Your task to perform on an android device: turn pop-ups off in chrome Image 0: 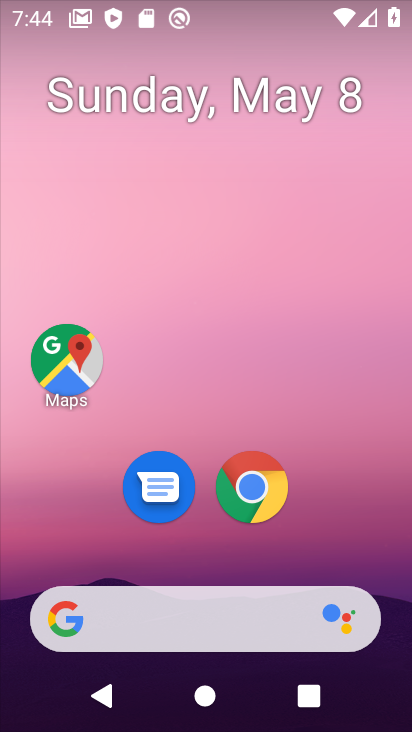
Step 0: click (257, 481)
Your task to perform on an android device: turn pop-ups off in chrome Image 1: 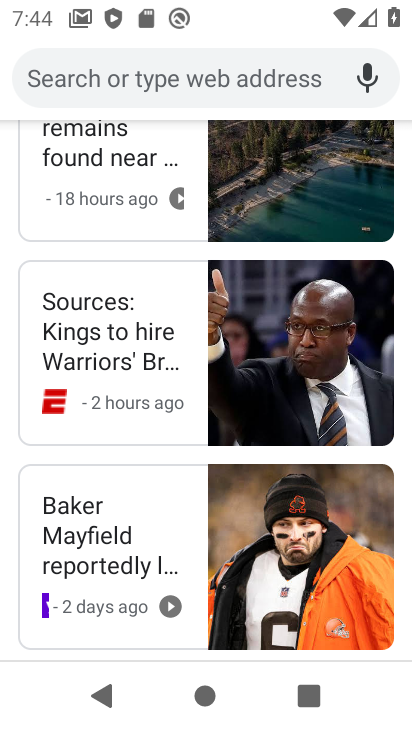
Step 1: drag from (264, 304) to (268, 520)
Your task to perform on an android device: turn pop-ups off in chrome Image 2: 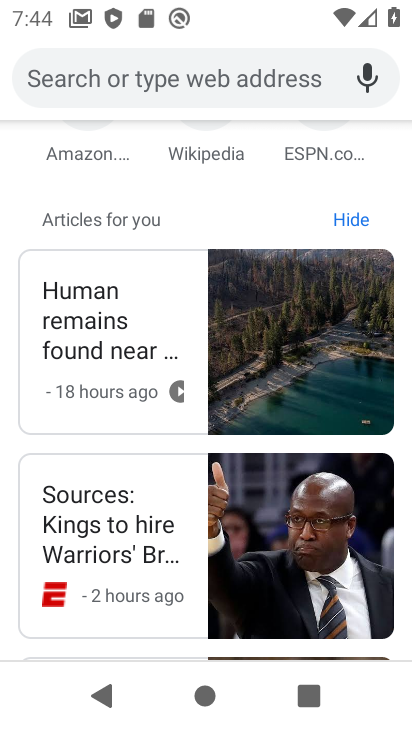
Step 2: drag from (336, 213) to (334, 606)
Your task to perform on an android device: turn pop-ups off in chrome Image 3: 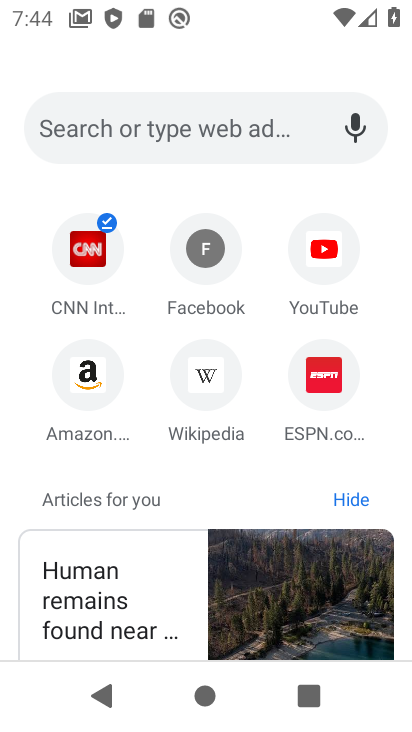
Step 3: drag from (374, 192) to (376, 636)
Your task to perform on an android device: turn pop-ups off in chrome Image 4: 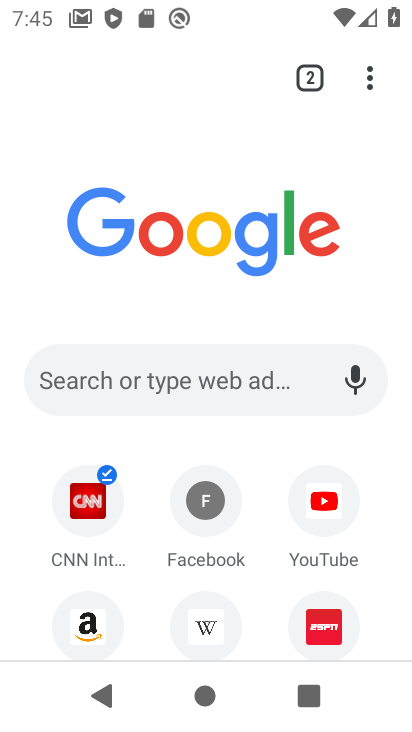
Step 4: click (381, 85)
Your task to perform on an android device: turn pop-ups off in chrome Image 5: 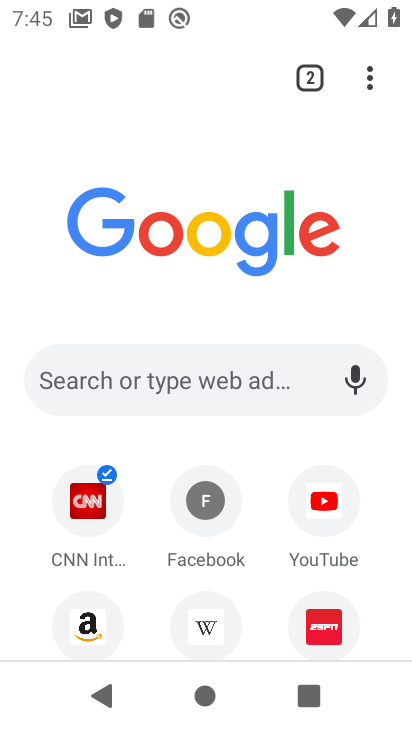
Step 5: click (378, 85)
Your task to perform on an android device: turn pop-ups off in chrome Image 6: 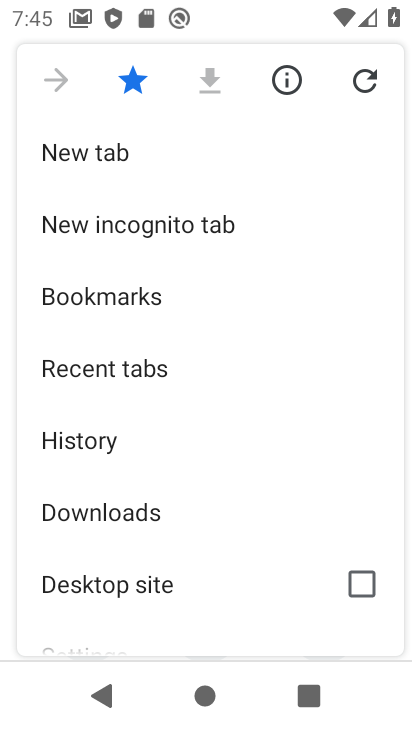
Step 6: drag from (102, 536) to (200, 253)
Your task to perform on an android device: turn pop-ups off in chrome Image 7: 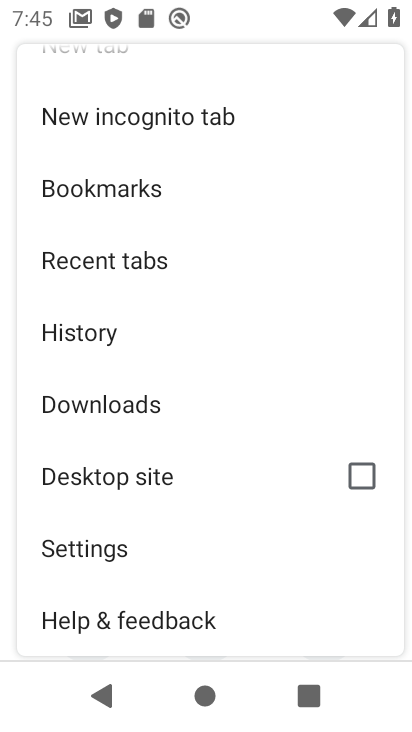
Step 7: click (143, 561)
Your task to perform on an android device: turn pop-ups off in chrome Image 8: 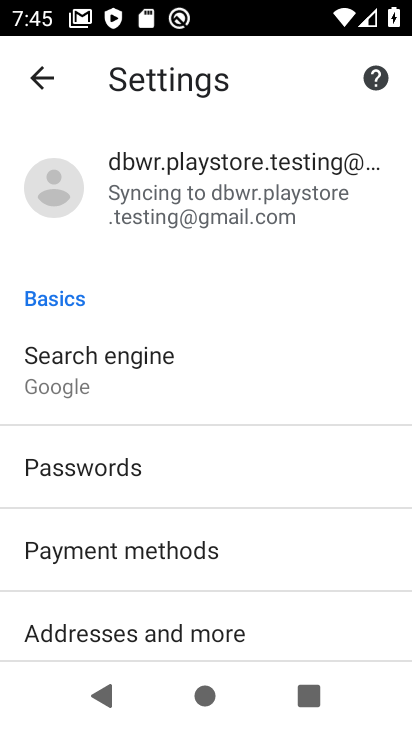
Step 8: drag from (139, 564) to (219, 310)
Your task to perform on an android device: turn pop-ups off in chrome Image 9: 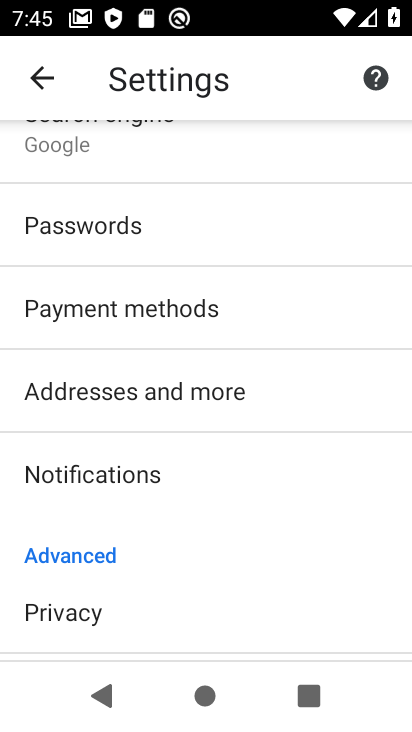
Step 9: drag from (203, 429) to (295, 179)
Your task to perform on an android device: turn pop-ups off in chrome Image 10: 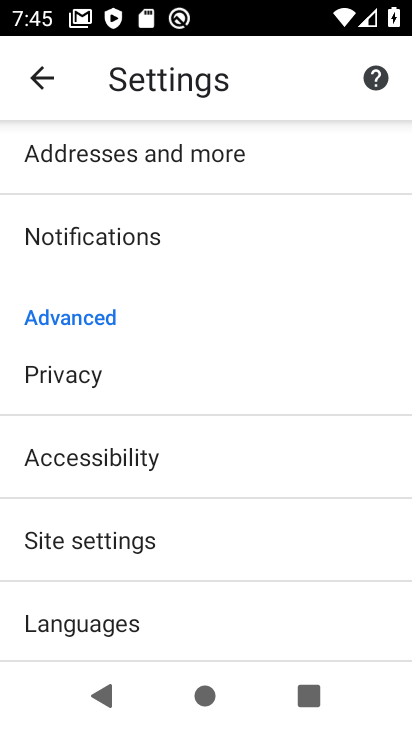
Step 10: click (187, 541)
Your task to perform on an android device: turn pop-ups off in chrome Image 11: 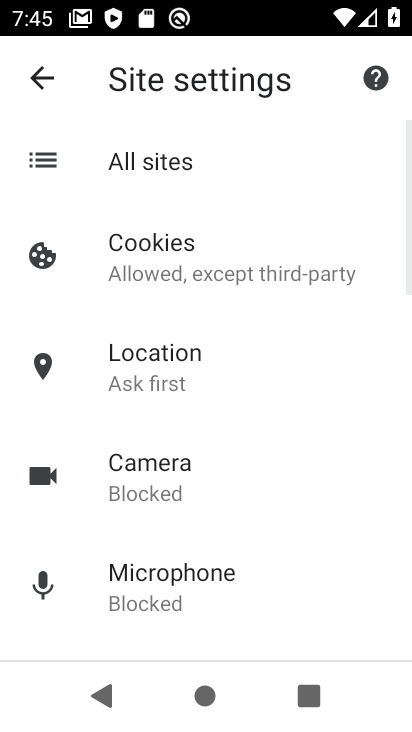
Step 11: drag from (177, 555) to (232, 405)
Your task to perform on an android device: turn pop-ups off in chrome Image 12: 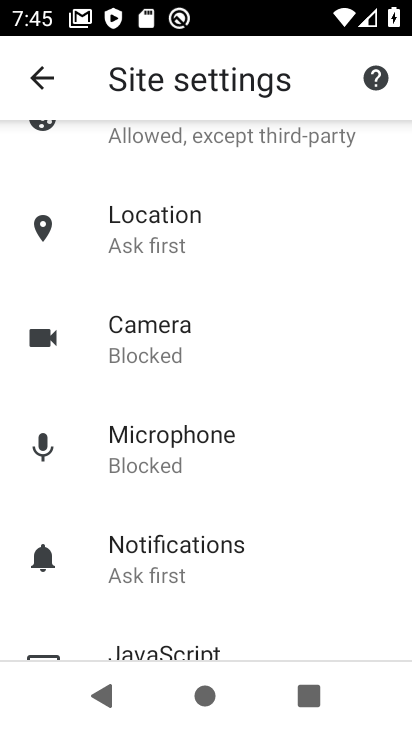
Step 12: click (206, 653)
Your task to perform on an android device: turn pop-ups off in chrome Image 13: 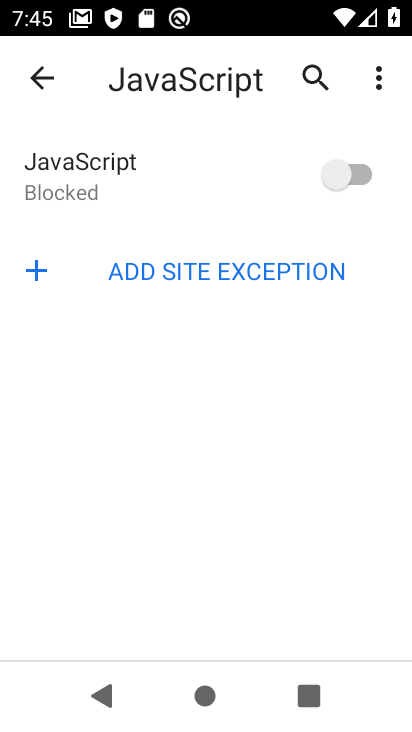
Step 13: click (340, 189)
Your task to perform on an android device: turn pop-ups off in chrome Image 14: 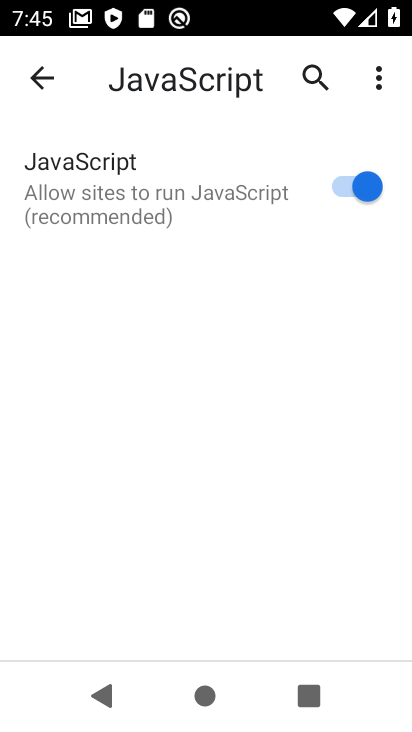
Step 14: task complete